Your task to perform on an android device: change the clock style Image 0: 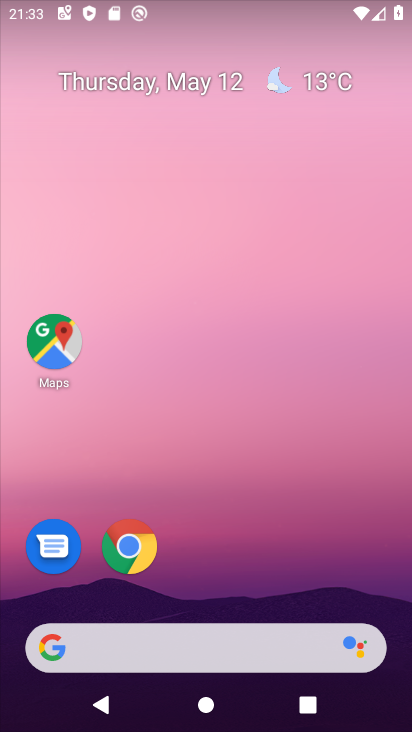
Step 0: press home button
Your task to perform on an android device: change the clock style Image 1: 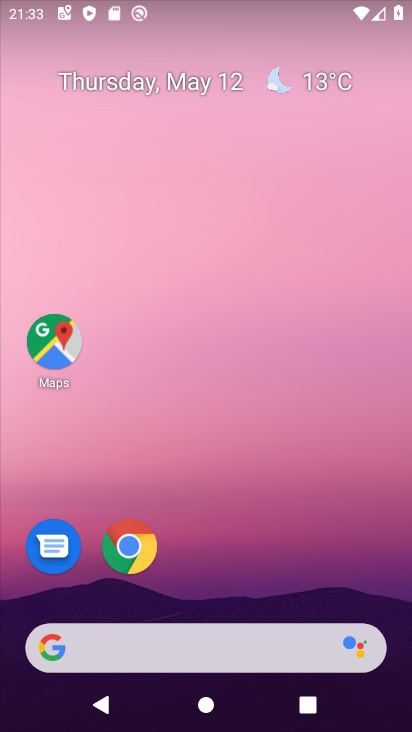
Step 1: drag from (233, 574) to (265, 145)
Your task to perform on an android device: change the clock style Image 2: 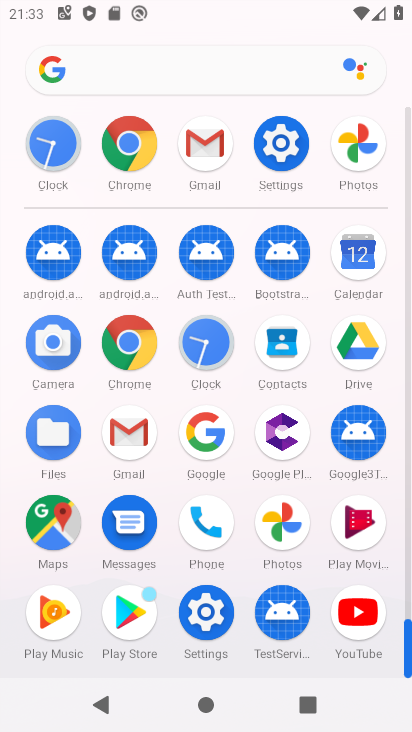
Step 2: click (51, 136)
Your task to perform on an android device: change the clock style Image 3: 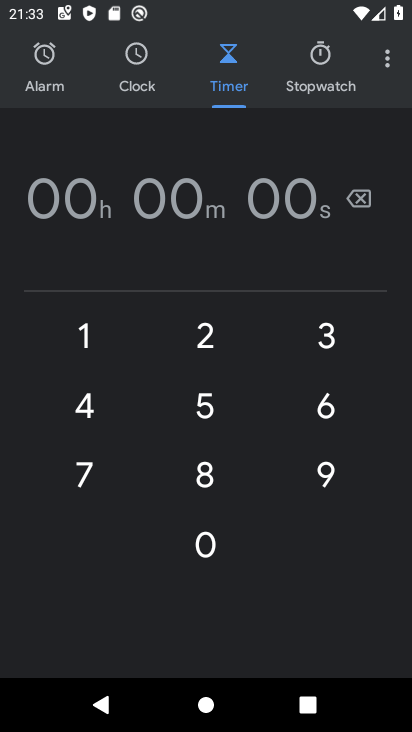
Step 3: click (387, 70)
Your task to perform on an android device: change the clock style Image 4: 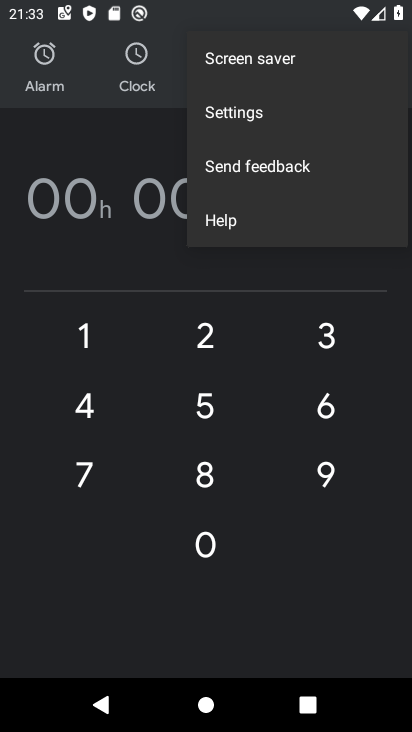
Step 4: click (245, 115)
Your task to perform on an android device: change the clock style Image 5: 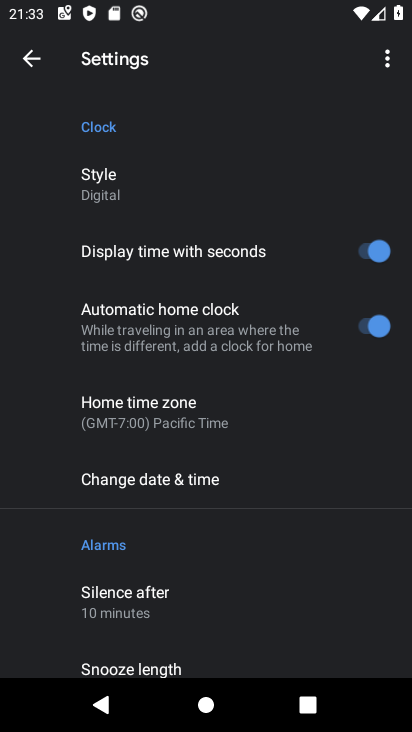
Step 5: click (118, 190)
Your task to perform on an android device: change the clock style Image 6: 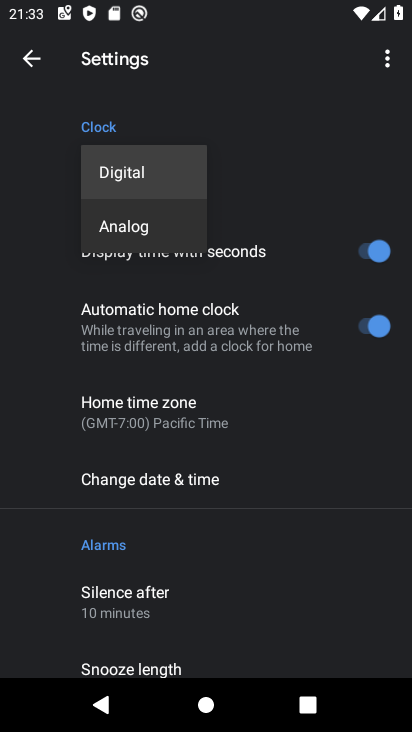
Step 6: click (176, 232)
Your task to perform on an android device: change the clock style Image 7: 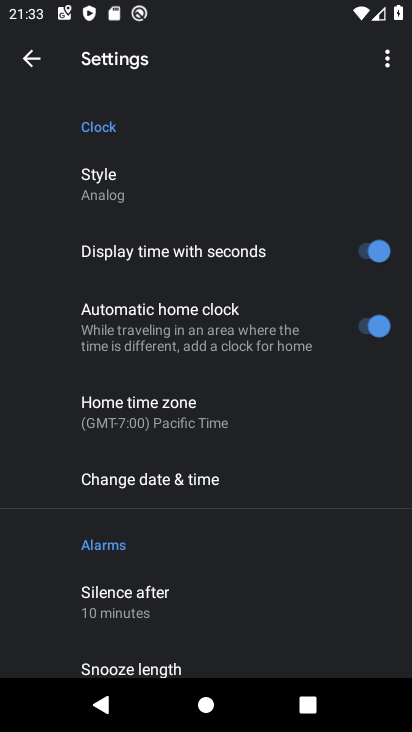
Step 7: task complete